Your task to perform on an android device: Open CNN.com Image 0: 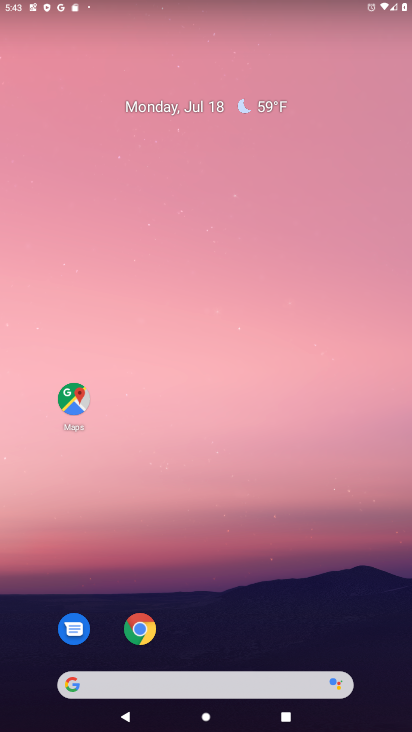
Step 0: drag from (297, 585) to (187, 83)
Your task to perform on an android device: Open CNN.com Image 1: 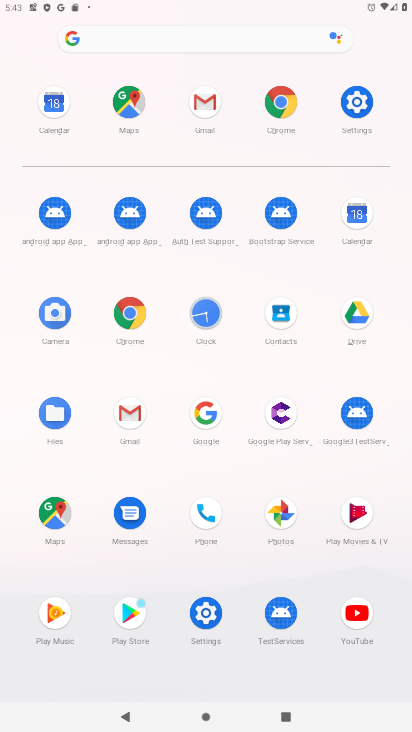
Step 1: click (277, 99)
Your task to perform on an android device: Open CNN.com Image 2: 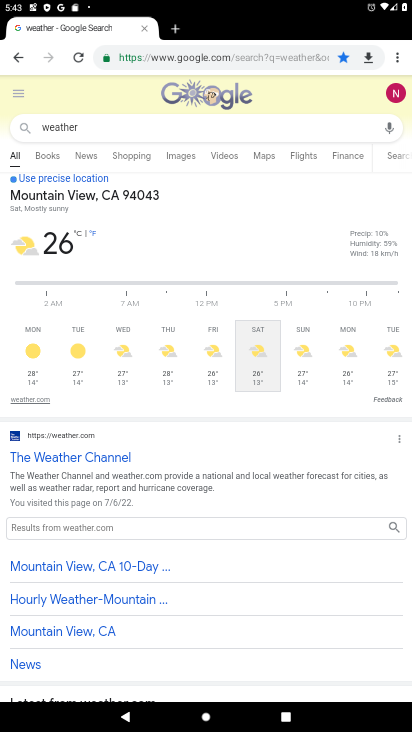
Step 2: click (244, 56)
Your task to perform on an android device: Open CNN.com Image 3: 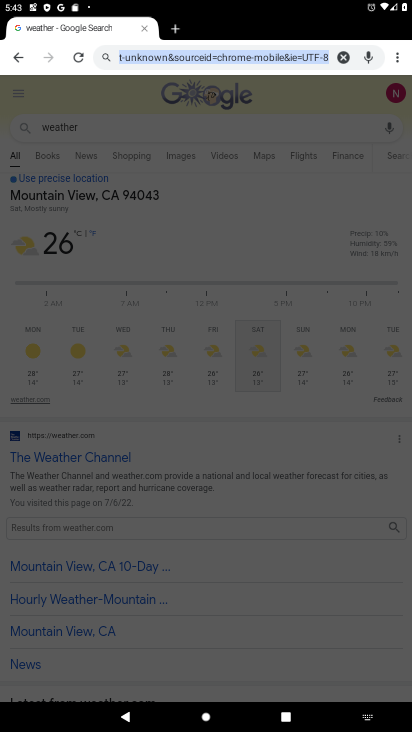
Step 3: type "cnn.com"
Your task to perform on an android device: Open CNN.com Image 4: 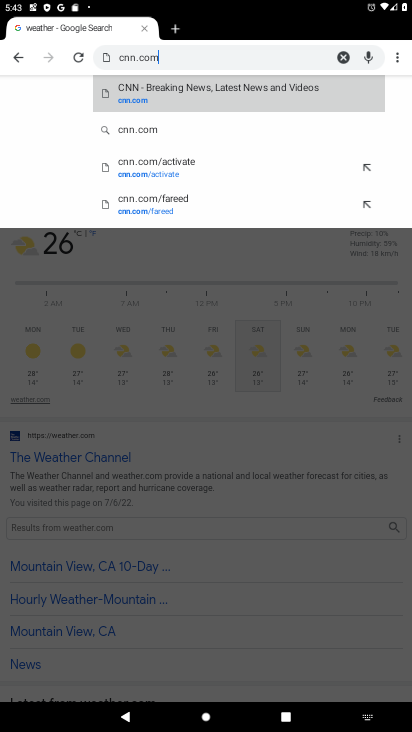
Step 4: click (149, 97)
Your task to perform on an android device: Open CNN.com Image 5: 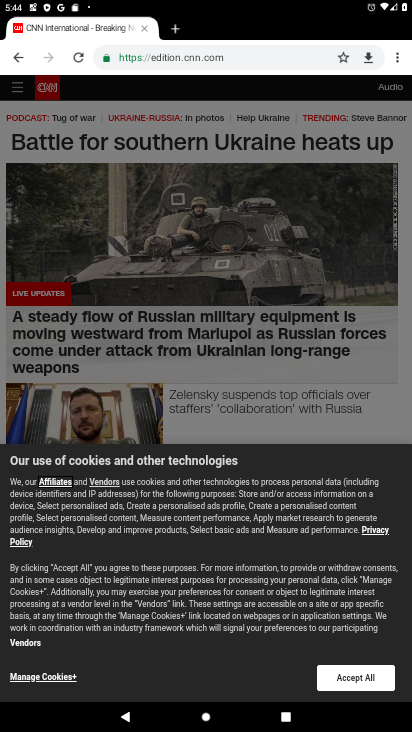
Step 5: task complete